Your task to perform on an android device: create a new album in the google photos Image 0: 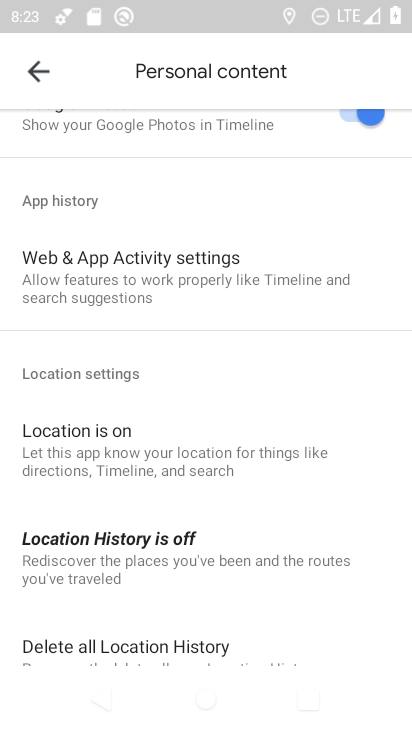
Step 0: press home button
Your task to perform on an android device: create a new album in the google photos Image 1: 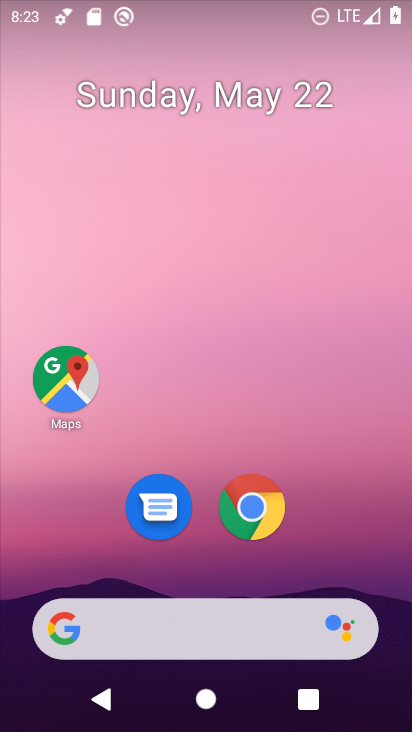
Step 1: drag from (260, 547) to (314, 43)
Your task to perform on an android device: create a new album in the google photos Image 2: 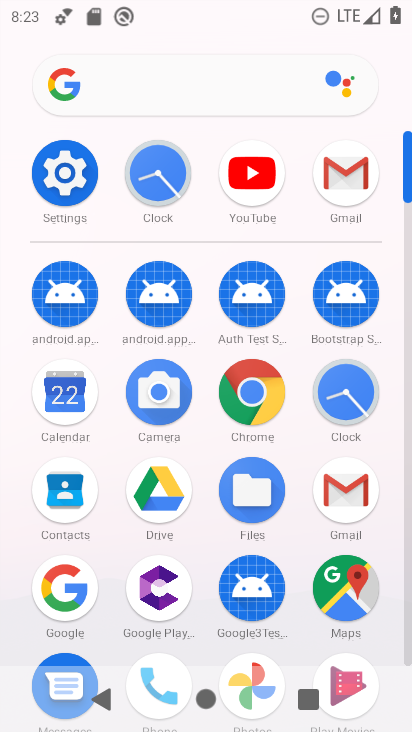
Step 2: click (254, 674)
Your task to perform on an android device: create a new album in the google photos Image 3: 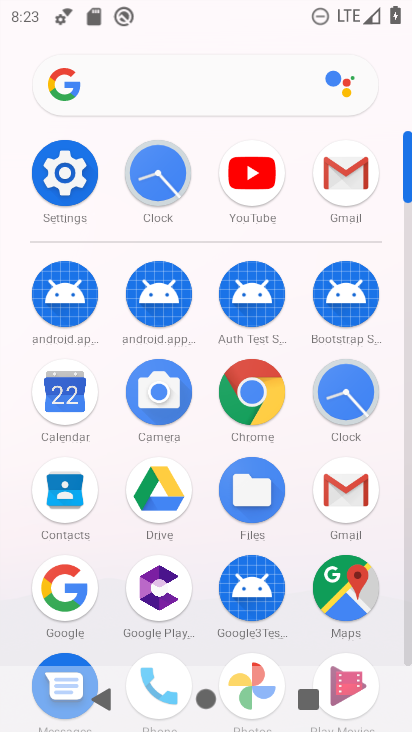
Step 3: click (235, 654)
Your task to perform on an android device: create a new album in the google photos Image 4: 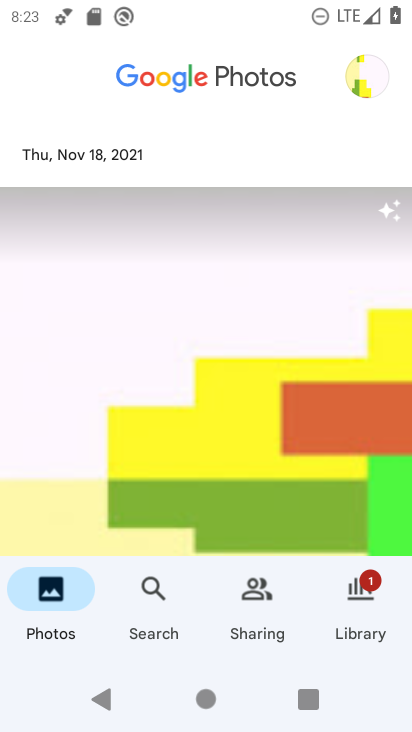
Step 4: click (81, 278)
Your task to perform on an android device: create a new album in the google photos Image 5: 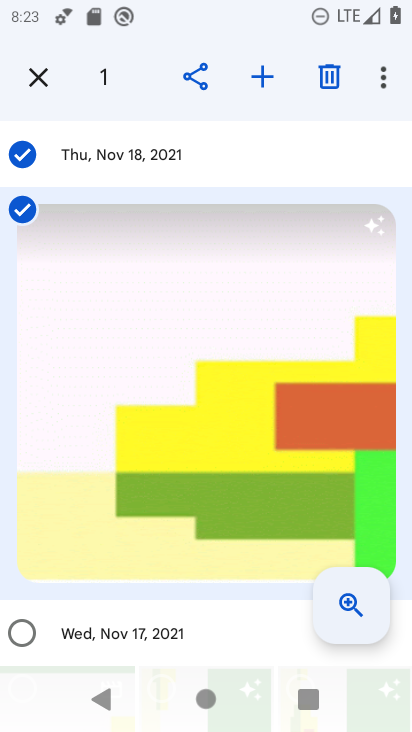
Step 5: click (271, 79)
Your task to perform on an android device: create a new album in the google photos Image 6: 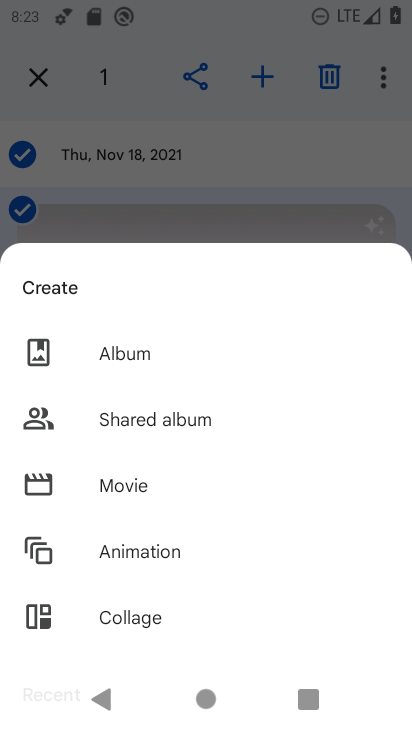
Step 6: click (154, 348)
Your task to perform on an android device: create a new album in the google photos Image 7: 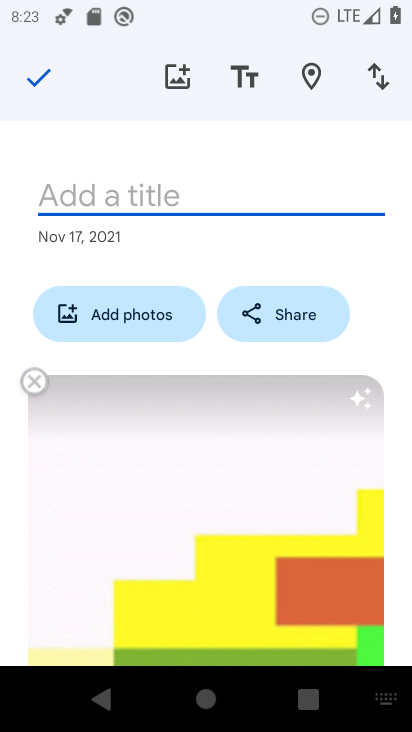
Step 7: type "hgfj"
Your task to perform on an android device: create a new album in the google photos Image 8: 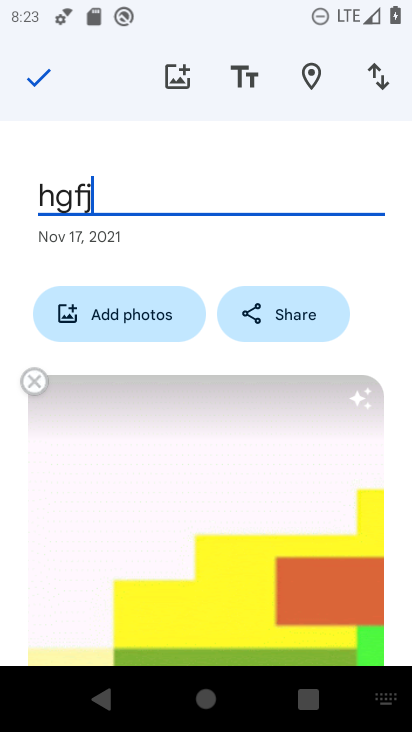
Step 8: click (47, 77)
Your task to perform on an android device: create a new album in the google photos Image 9: 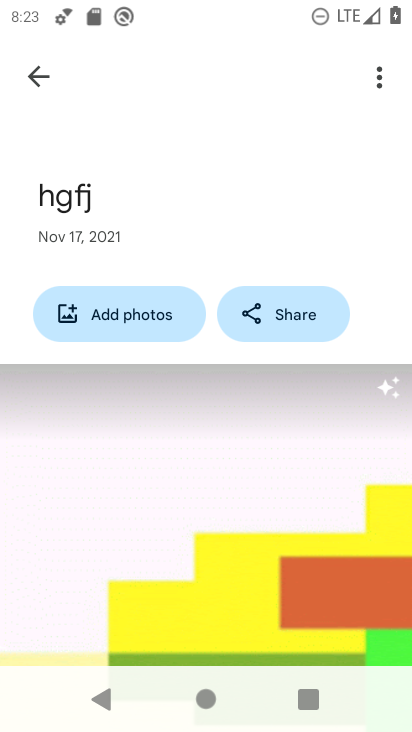
Step 9: task complete